Your task to perform on an android device: check battery use Image 0: 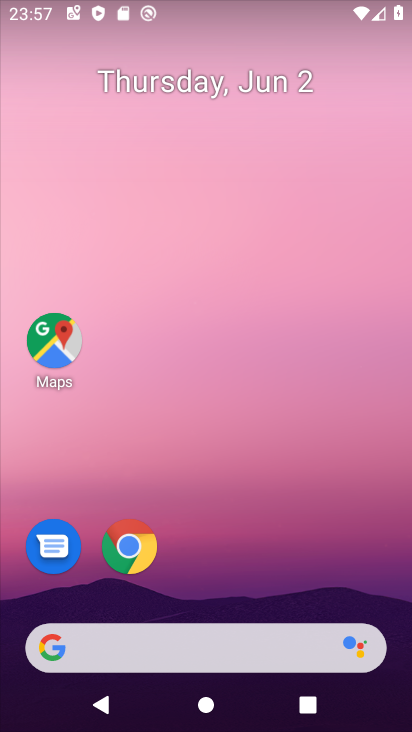
Step 0: drag from (120, 611) to (235, 151)
Your task to perform on an android device: check battery use Image 1: 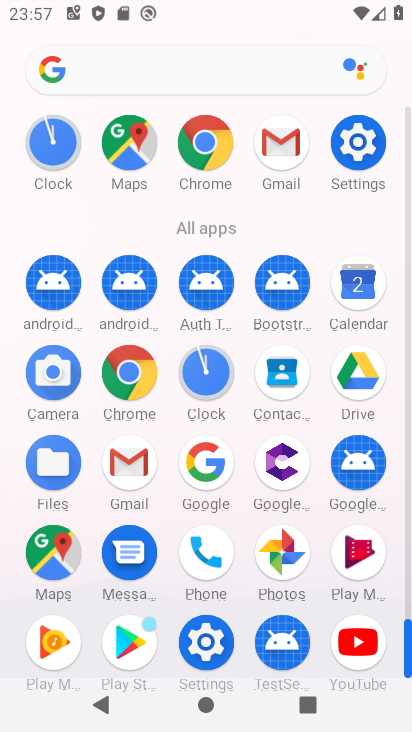
Step 1: click (357, 144)
Your task to perform on an android device: check battery use Image 2: 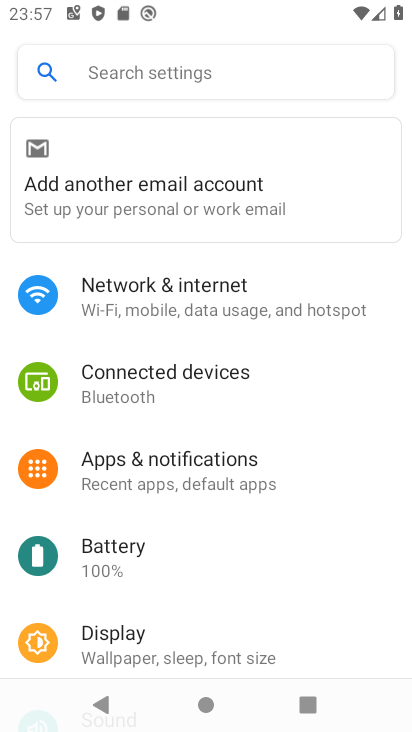
Step 2: click (149, 547)
Your task to perform on an android device: check battery use Image 3: 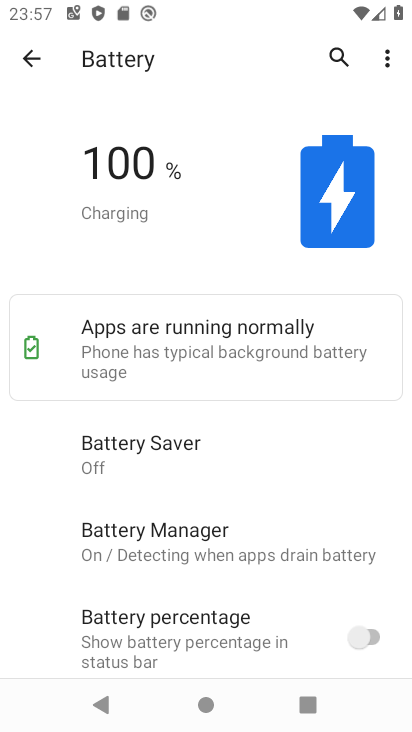
Step 3: click (391, 79)
Your task to perform on an android device: check battery use Image 4: 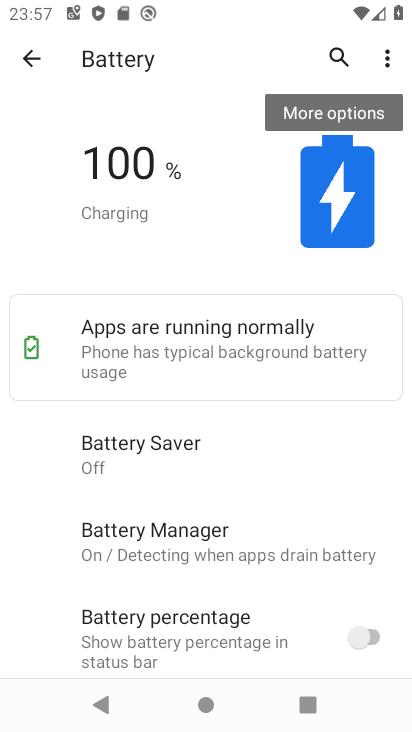
Step 4: click (389, 61)
Your task to perform on an android device: check battery use Image 5: 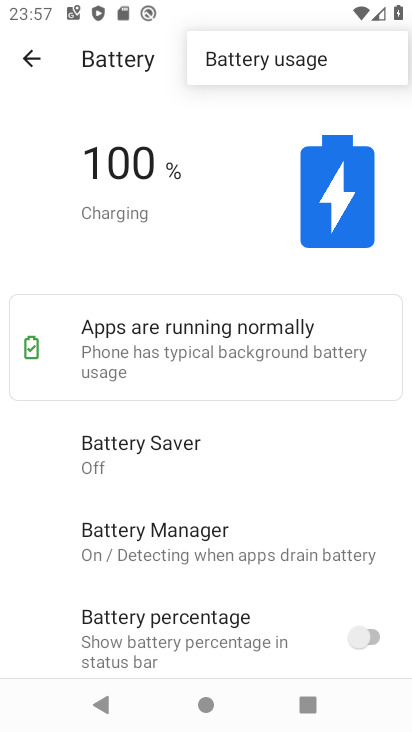
Step 5: click (385, 65)
Your task to perform on an android device: check battery use Image 6: 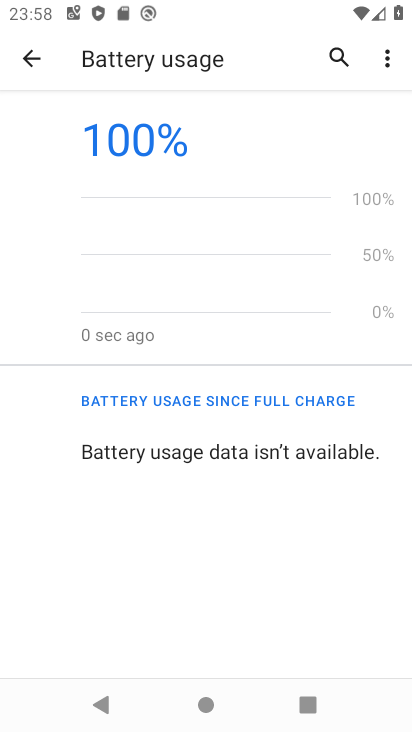
Step 6: task complete